Your task to perform on an android device: Open Amazon Image 0: 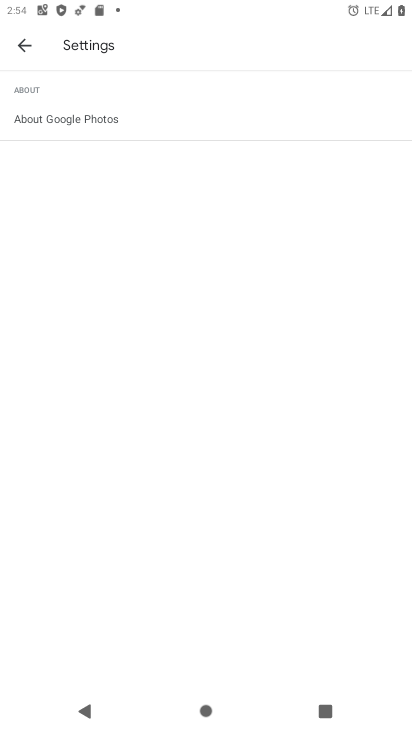
Step 0: press home button
Your task to perform on an android device: Open Amazon Image 1: 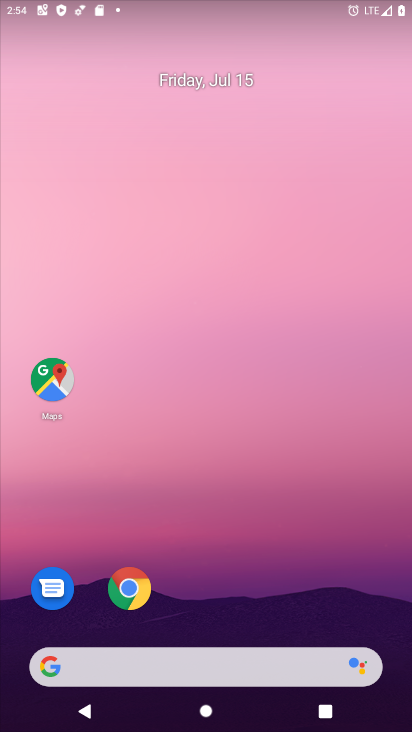
Step 1: click (128, 590)
Your task to perform on an android device: Open Amazon Image 2: 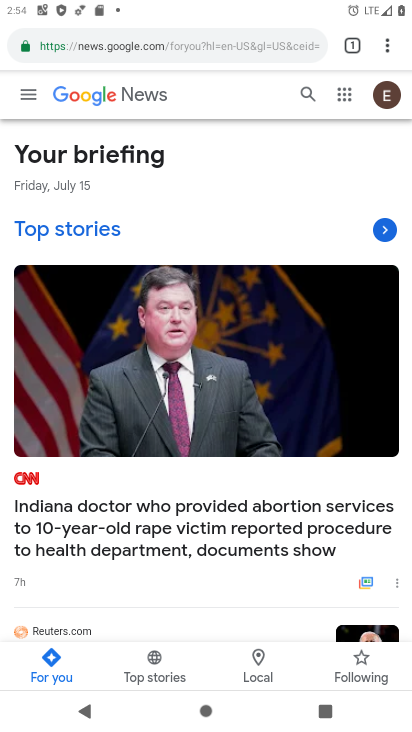
Step 2: click (246, 46)
Your task to perform on an android device: Open Amazon Image 3: 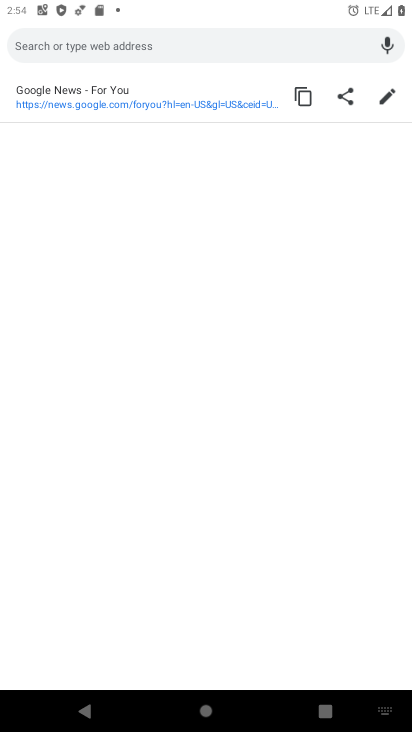
Step 3: type "Amazon"
Your task to perform on an android device: Open Amazon Image 4: 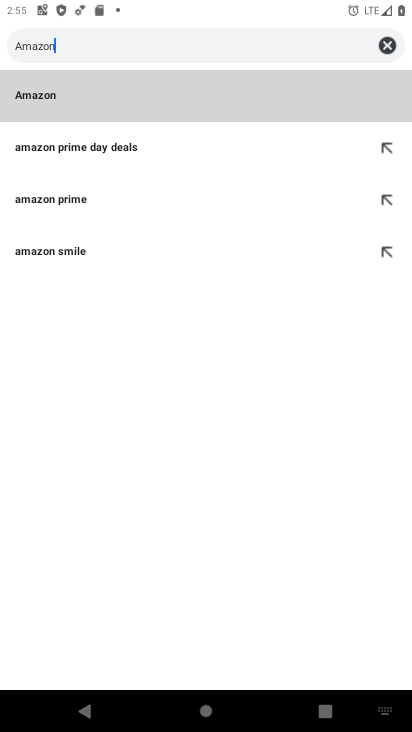
Step 4: click (225, 98)
Your task to perform on an android device: Open Amazon Image 5: 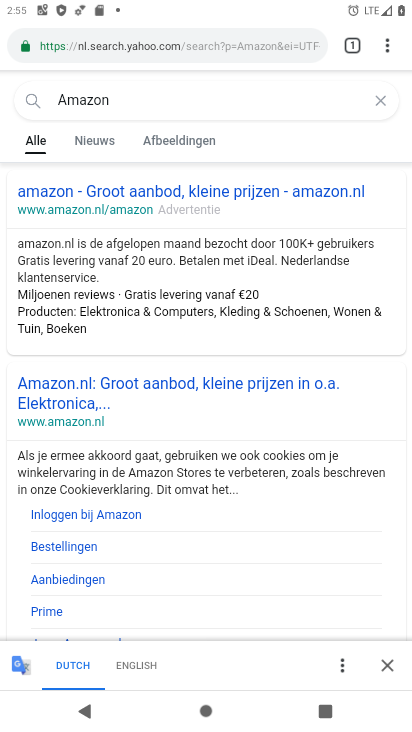
Step 5: click (156, 386)
Your task to perform on an android device: Open Amazon Image 6: 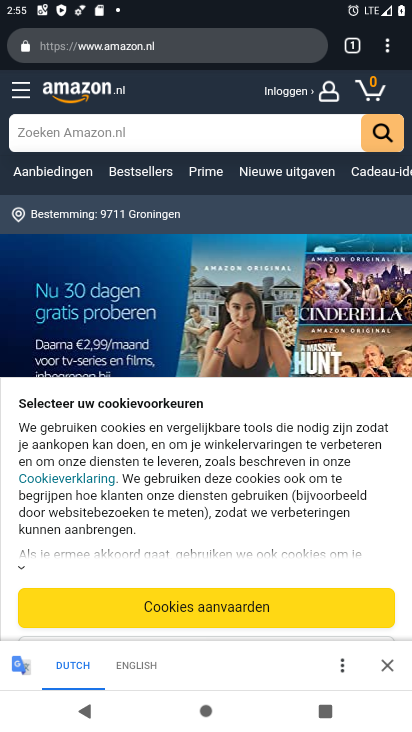
Step 6: task complete